Your task to perform on an android device: Open calendar and show me the second week of next month Image 0: 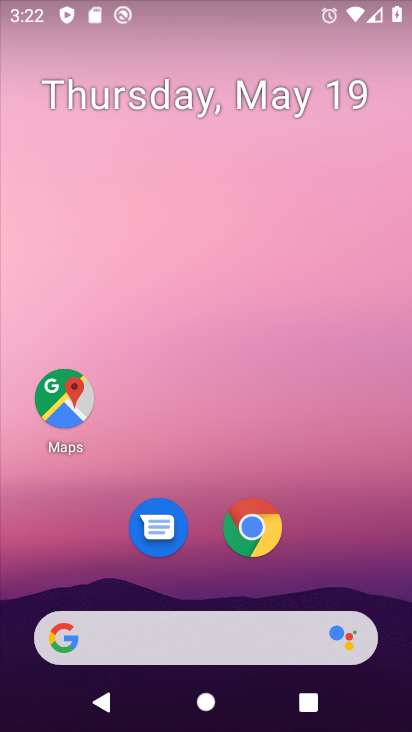
Step 0: drag from (324, 559) to (307, 139)
Your task to perform on an android device: Open calendar and show me the second week of next month Image 1: 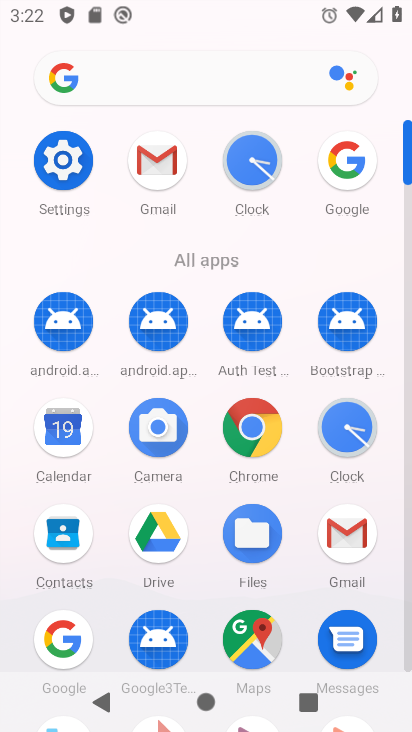
Step 1: click (66, 442)
Your task to perform on an android device: Open calendar and show me the second week of next month Image 2: 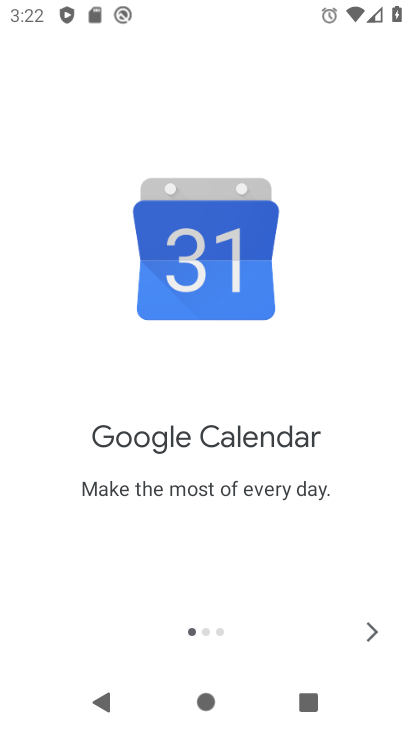
Step 2: click (360, 629)
Your task to perform on an android device: Open calendar and show me the second week of next month Image 3: 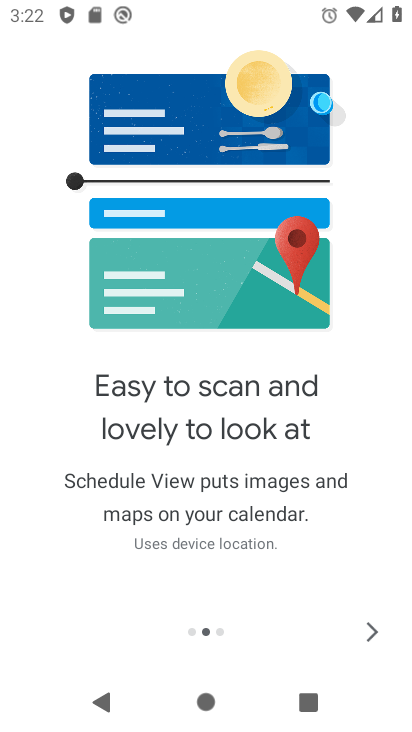
Step 3: click (364, 634)
Your task to perform on an android device: Open calendar and show me the second week of next month Image 4: 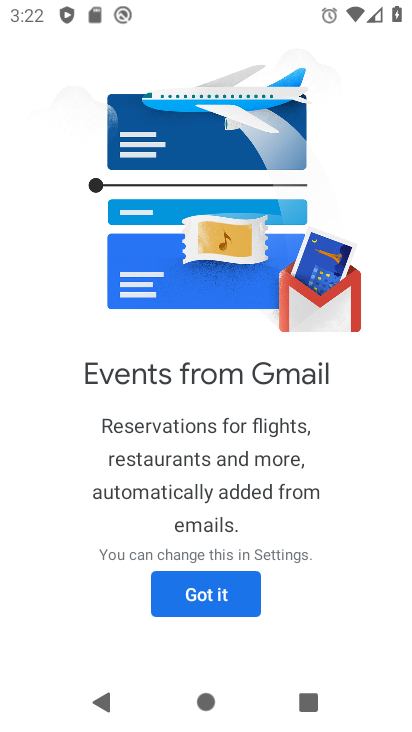
Step 4: click (227, 604)
Your task to perform on an android device: Open calendar and show me the second week of next month Image 5: 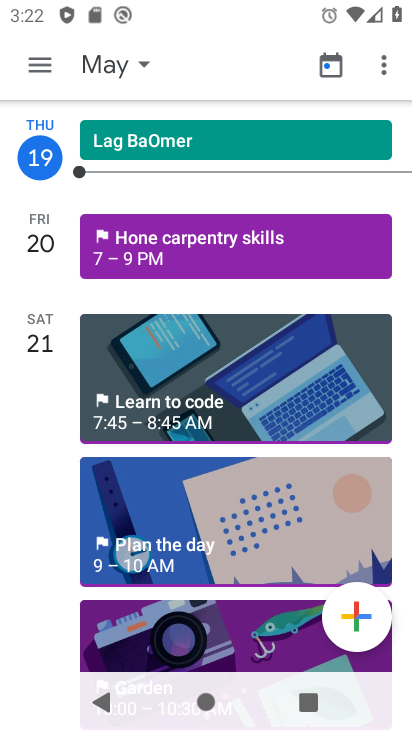
Step 5: click (138, 62)
Your task to perform on an android device: Open calendar and show me the second week of next month Image 6: 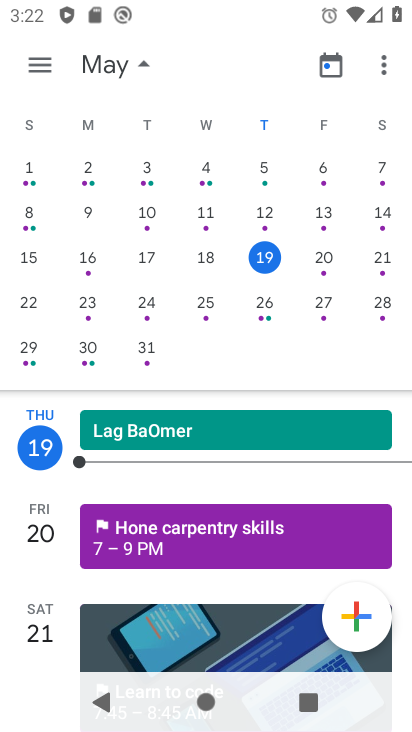
Step 6: drag from (352, 304) to (8, 318)
Your task to perform on an android device: Open calendar and show me the second week of next month Image 7: 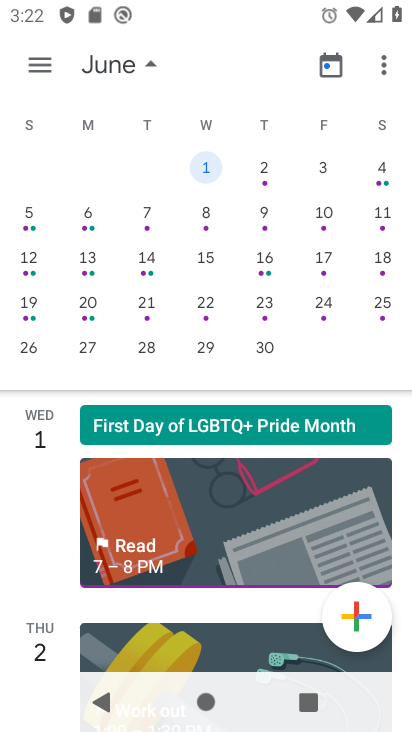
Step 7: click (33, 214)
Your task to perform on an android device: Open calendar and show me the second week of next month Image 8: 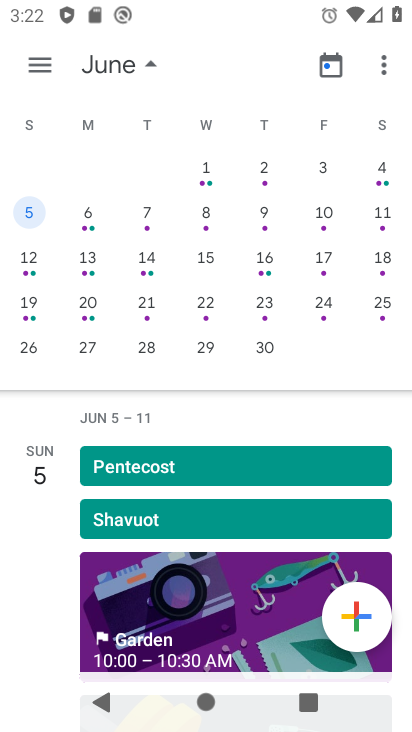
Step 8: click (81, 221)
Your task to perform on an android device: Open calendar and show me the second week of next month Image 9: 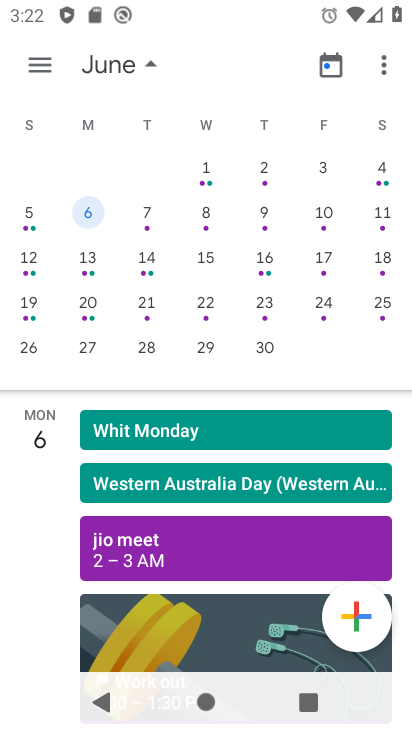
Step 9: click (147, 220)
Your task to perform on an android device: Open calendar and show me the second week of next month Image 10: 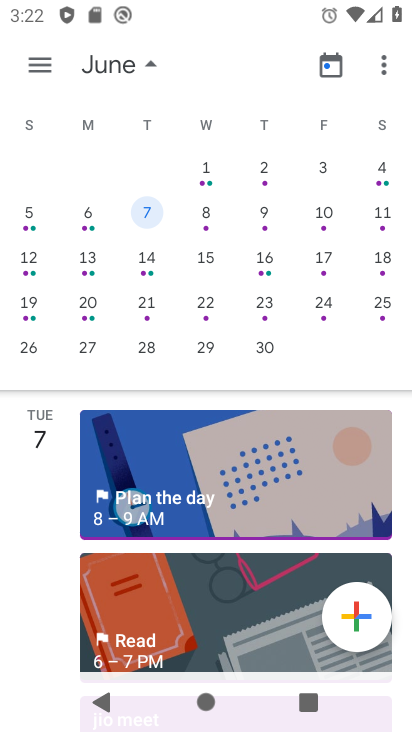
Step 10: click (201, 217)
Your task to perform on an android device: Open calendar and show me the second week of next month Image 11: 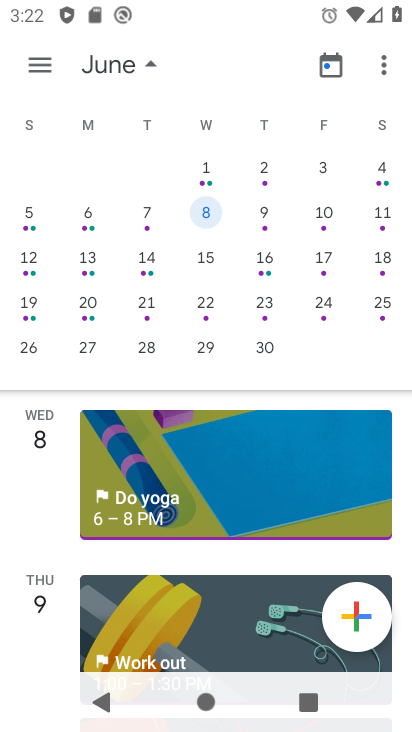
Step 11: click (267, 216)
Your task to perform on an android device: Open calendar and show me the second week of next month Image 12: 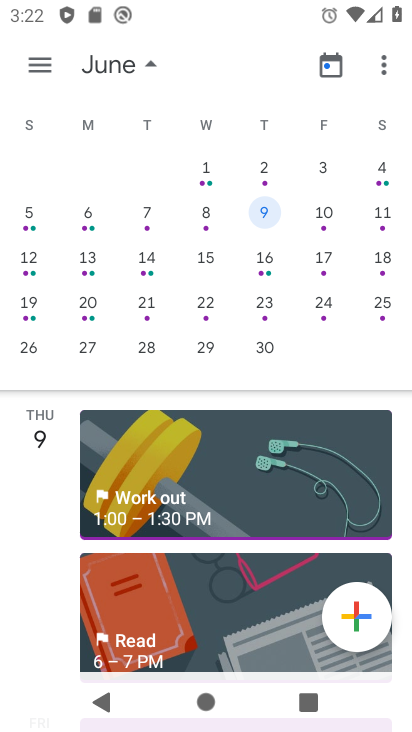
Step 12: click (326, 221)
Your task to perform on an android device: Open calendar and show me the second week of next month Image 13: 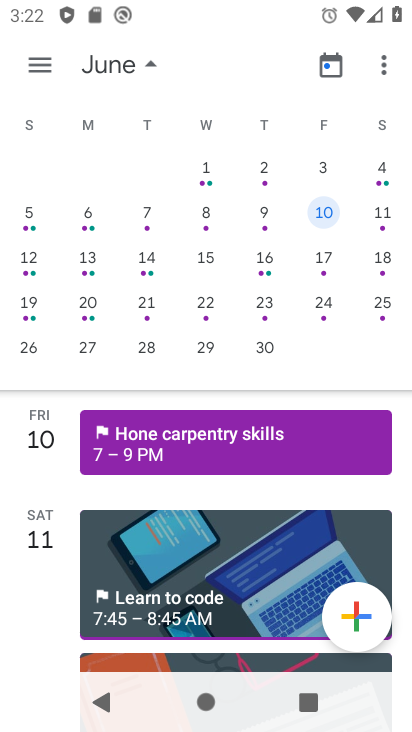
Step 13: click (377, 211)
Your task to perform on an android device: Open calendar and show me the second week of next month Image 14: 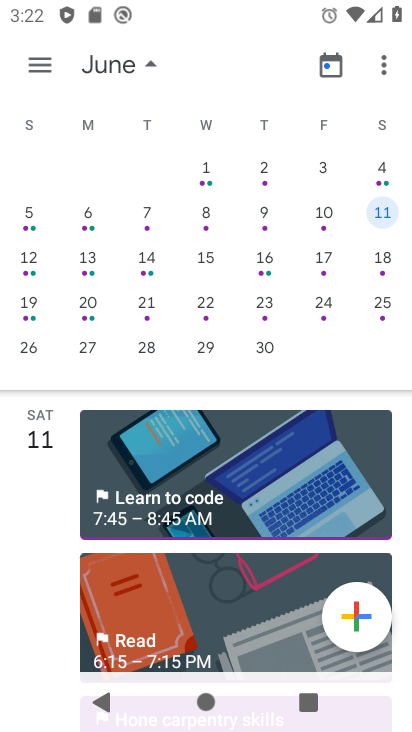
Step 14: task complete